Your task to perform on an android device: choose inbox layout in the gmail app Image 0: 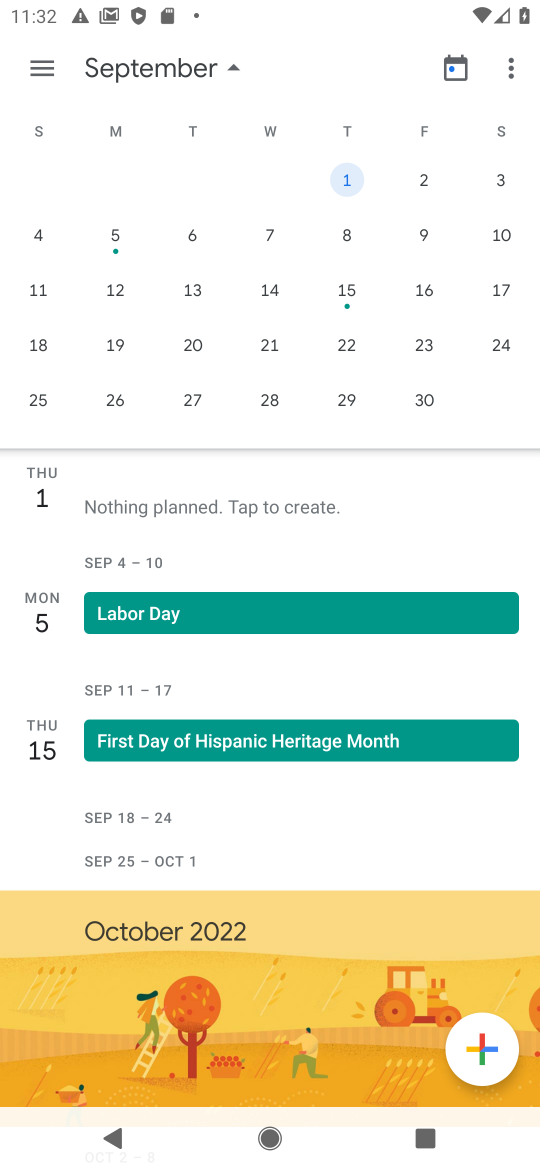
Step 0: press home button
Your task to perform on an android device: choose inbox layout in the gmail app Image 1: 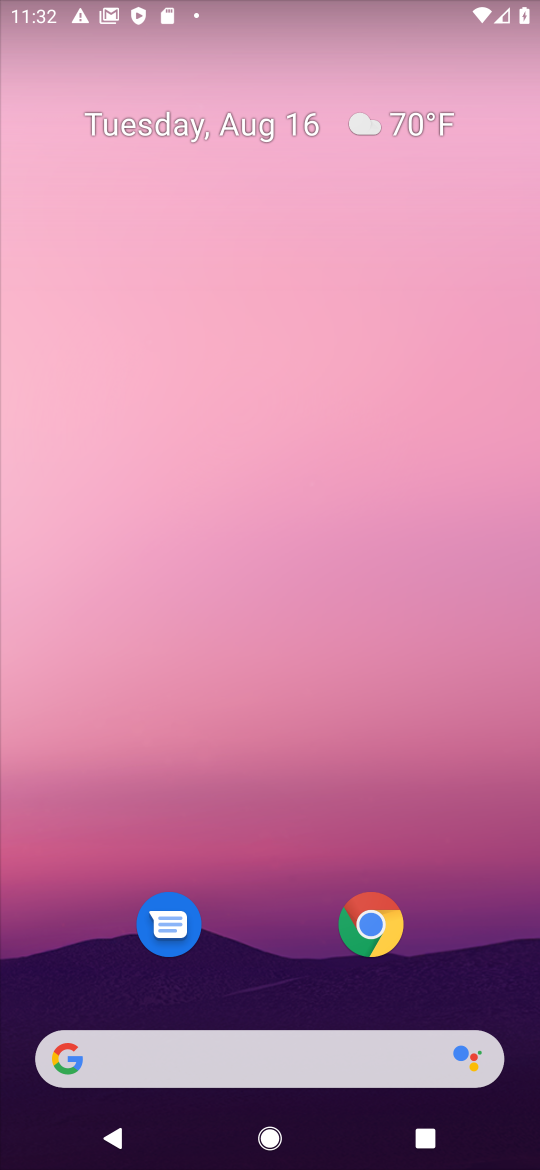
Step 1: drag from (239, 1023) to (273, 158)
Your task to perform on an android device: choose inbox layout in the gmail app Image 2: 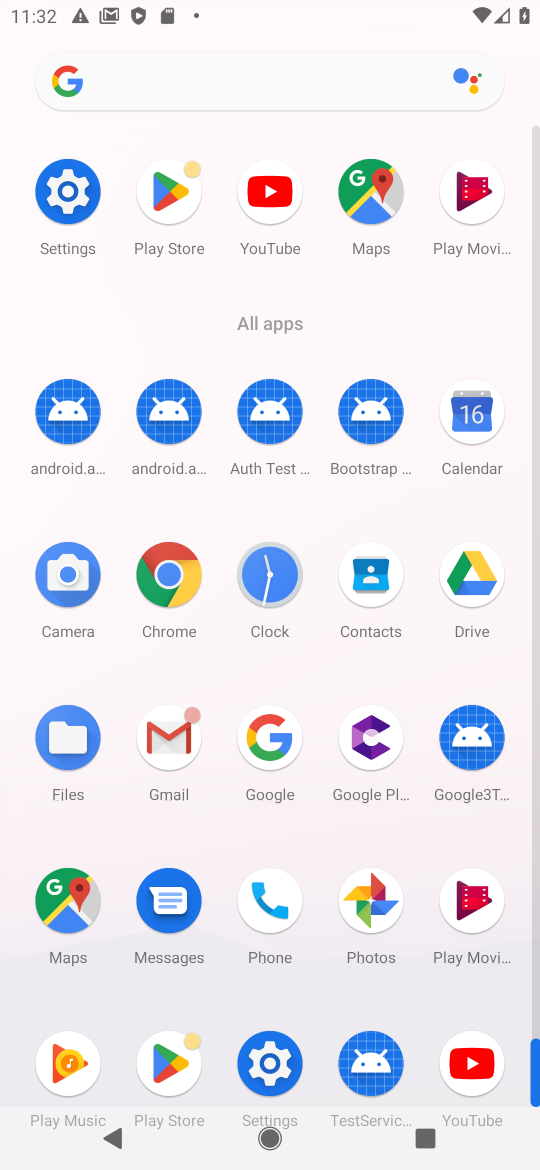
Step 2: click (200, 724)
Your task to perform on an android device: choose inbox layout in the gmail app Image 3: 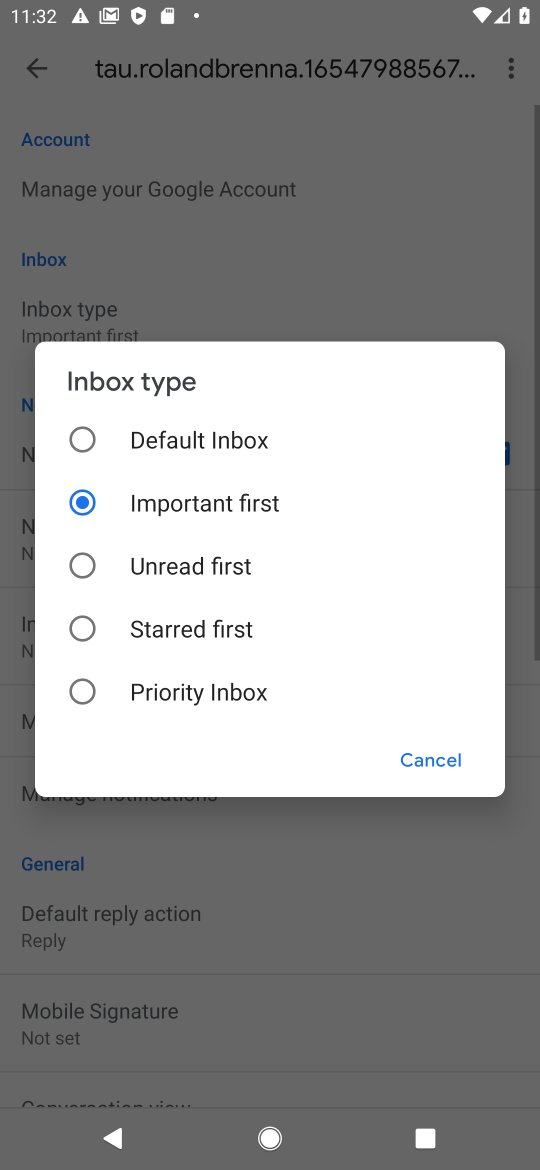
Step 3: click (272, 617)
Your task to perform on an android device: choose inbox layout in the gmail app Image 4: 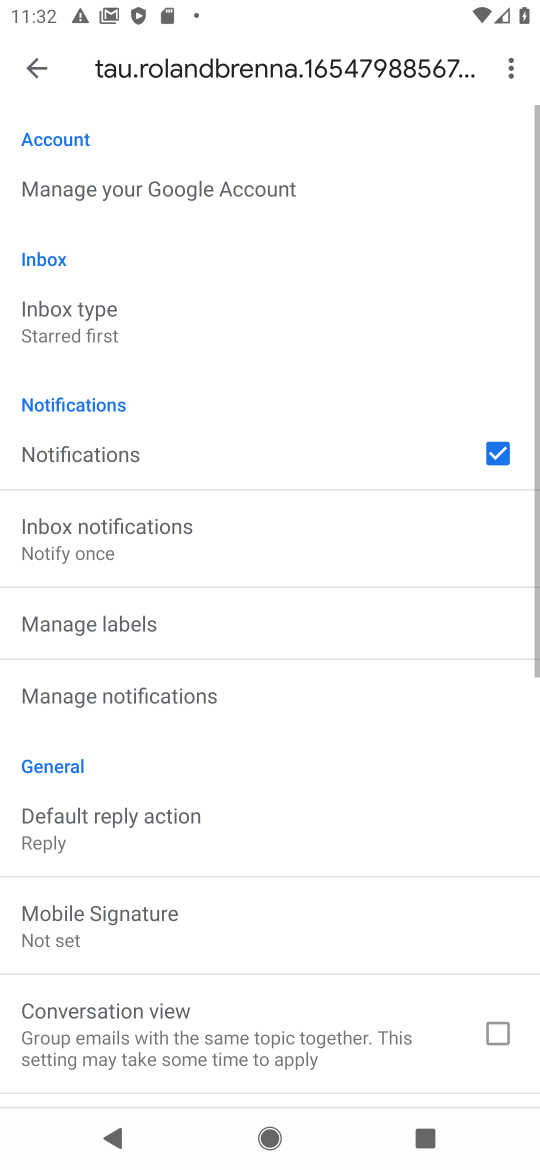
Step 4: task complete